Your task to perform on an android device: turn on the 12-hour format for clock Image 0: 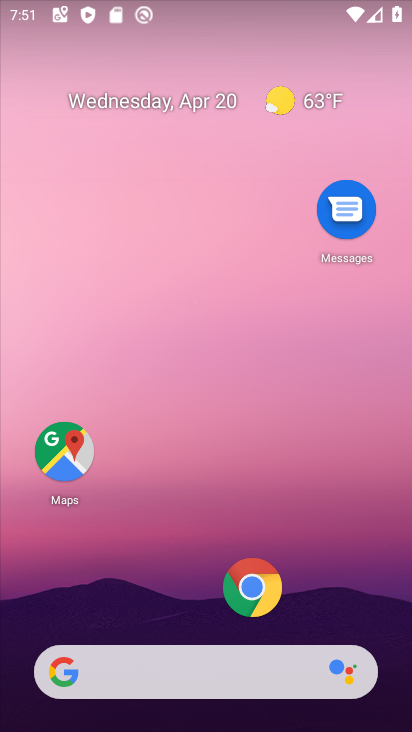
Step 0: drag from (158, 659) to (316, 116)
Your task to perform on an android device: turn on the 12-hour format for clock Image 1: 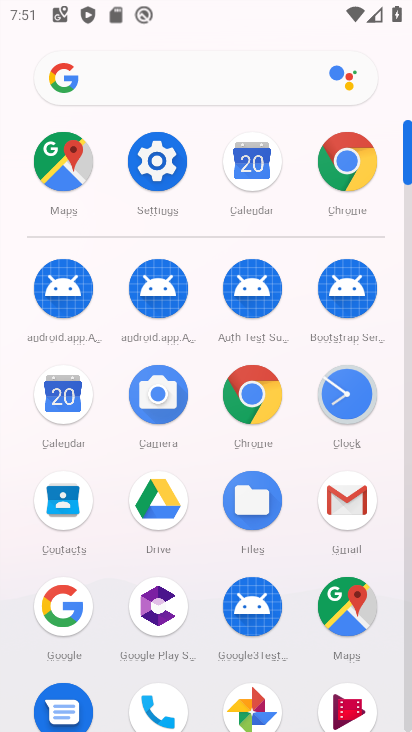
Step 1: click (353, 400)
Your task to perform on an android device: turn on the 12-hour format for clock Image 2: 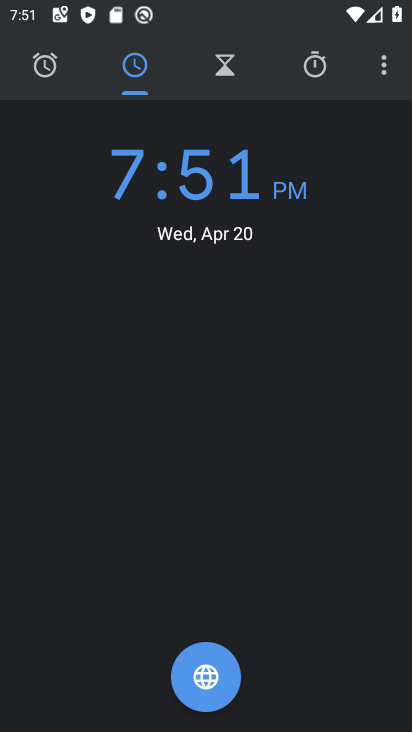
Step 2: click (387, 69)
Your task to perform on an android device: turn on the 12-hour format for clock Image 3: 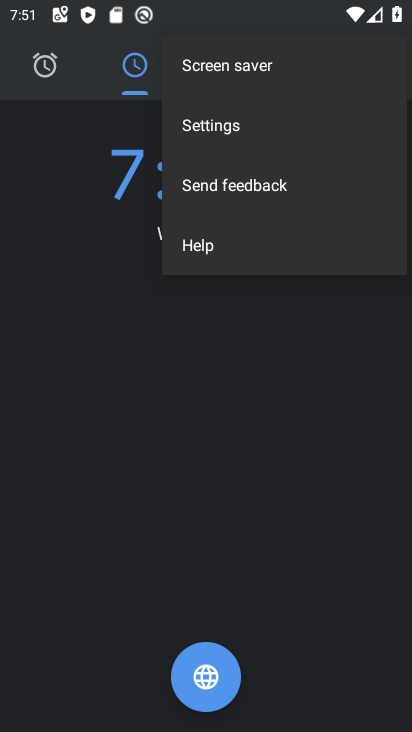
Step 3: click (240, 129)
Your task to perform on an android device: turn on the 12-hour format for clock Image 4: 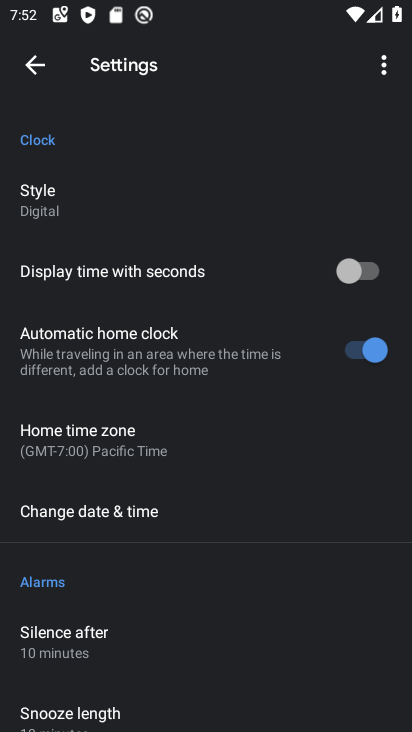
Step 4: click (97, 511)
Your task to perform on an android device: turn on the 12-hour format for clock Image 5: 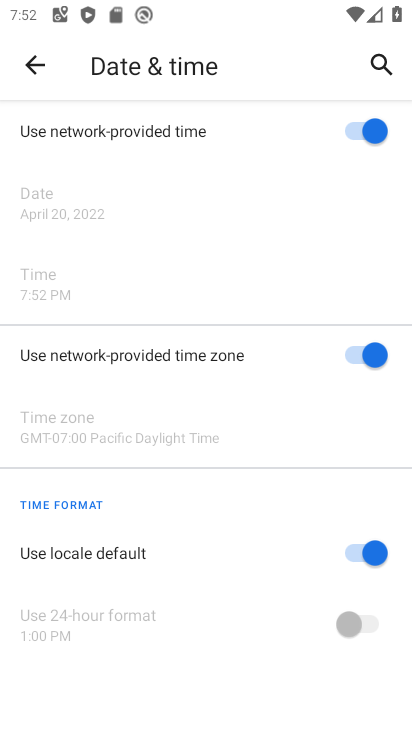
Step 5: task complete